Your task to perform on an android device: Go to Maps Image 0: 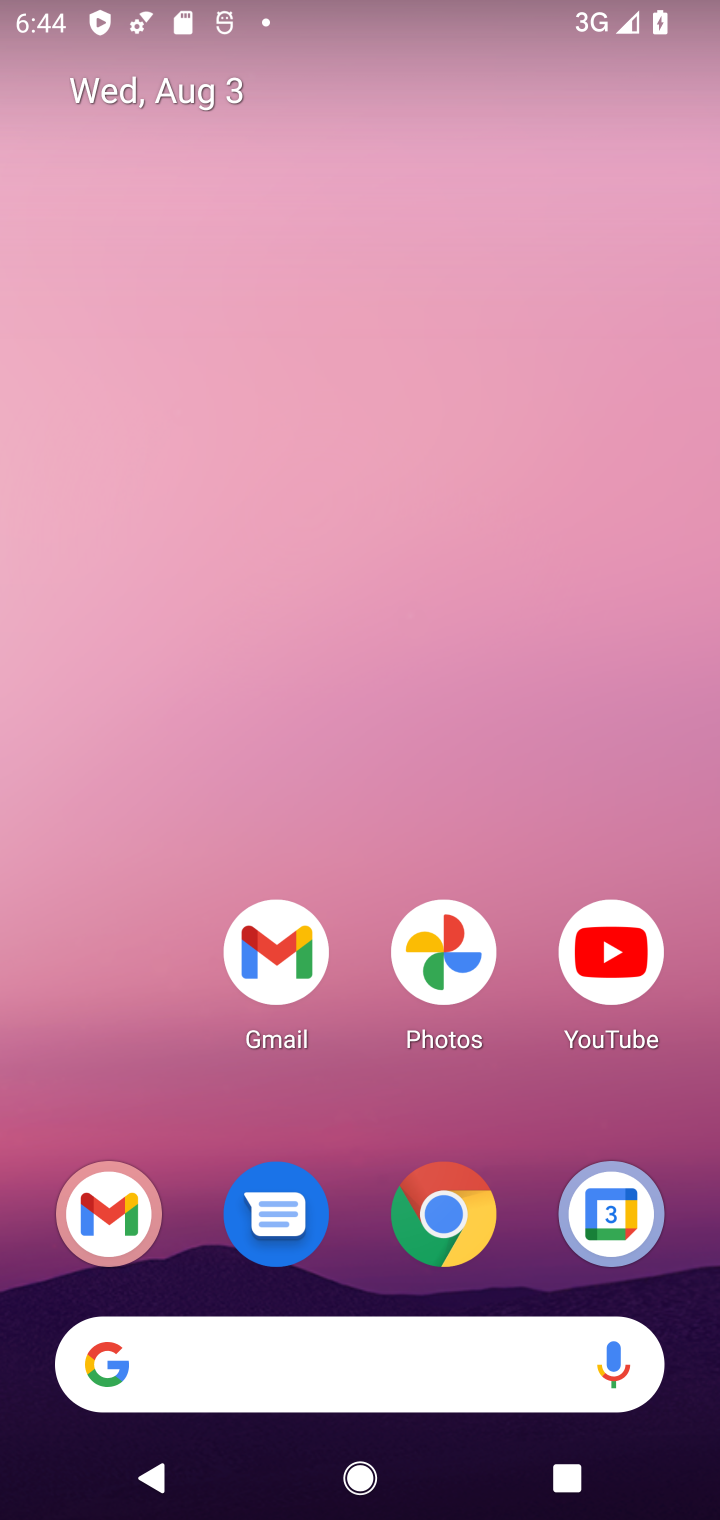
Step 0: drag from (84, 1115) to (717, 46)
Your task to perform on an android device: Go to Maps Image 1: 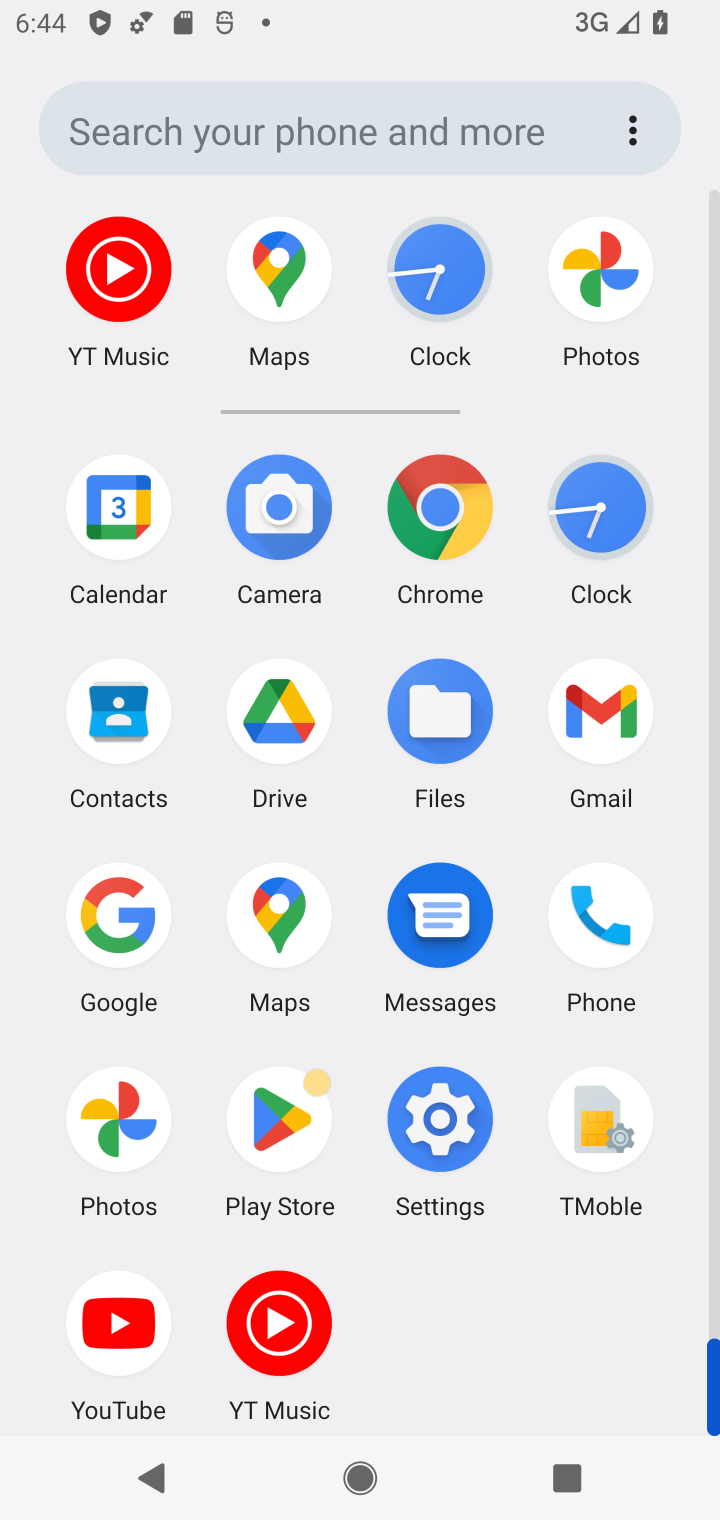
Step 1: click (287, 931)
Your task to perform on an android device: Go to Maps Image 2: 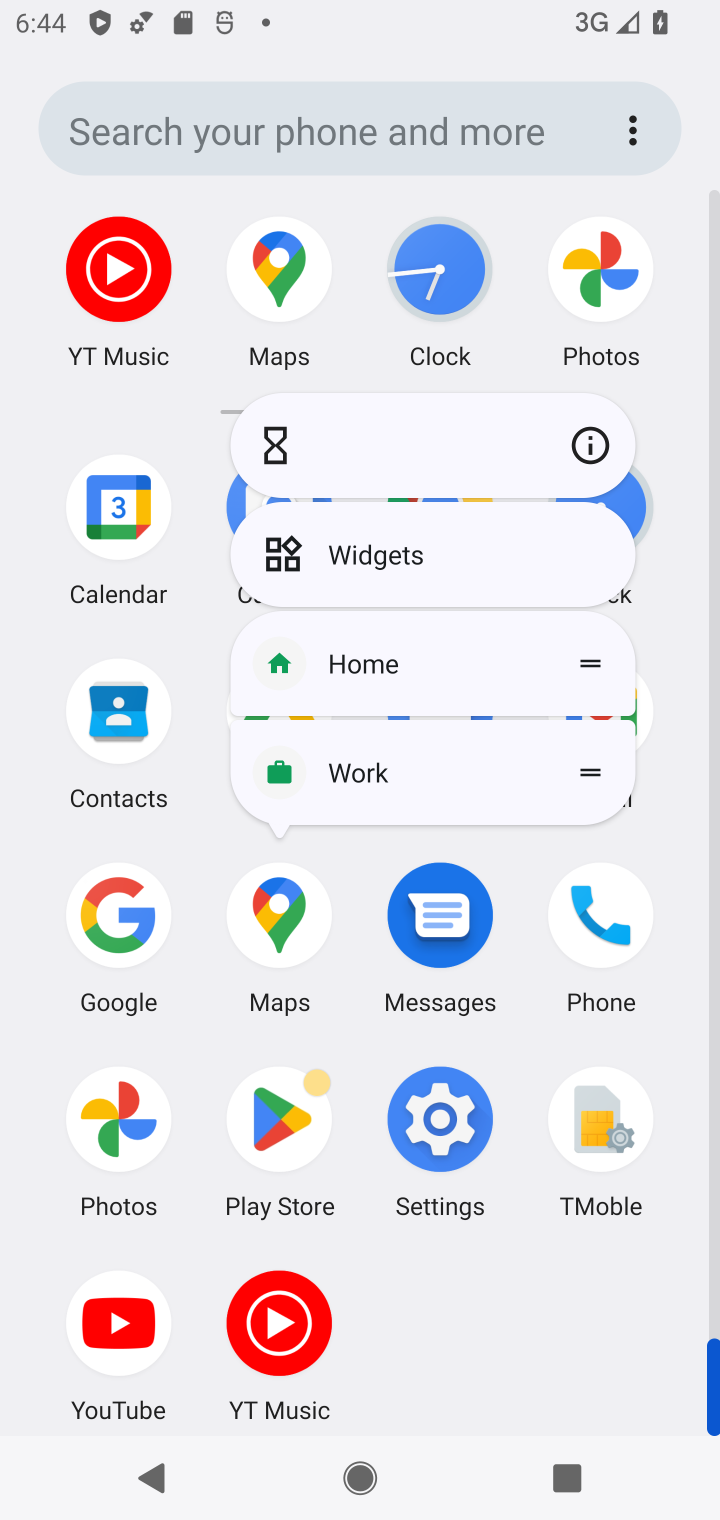
Step 2: click (270, 928)
Your task to perform on an android device: Go to Maps Image 3: 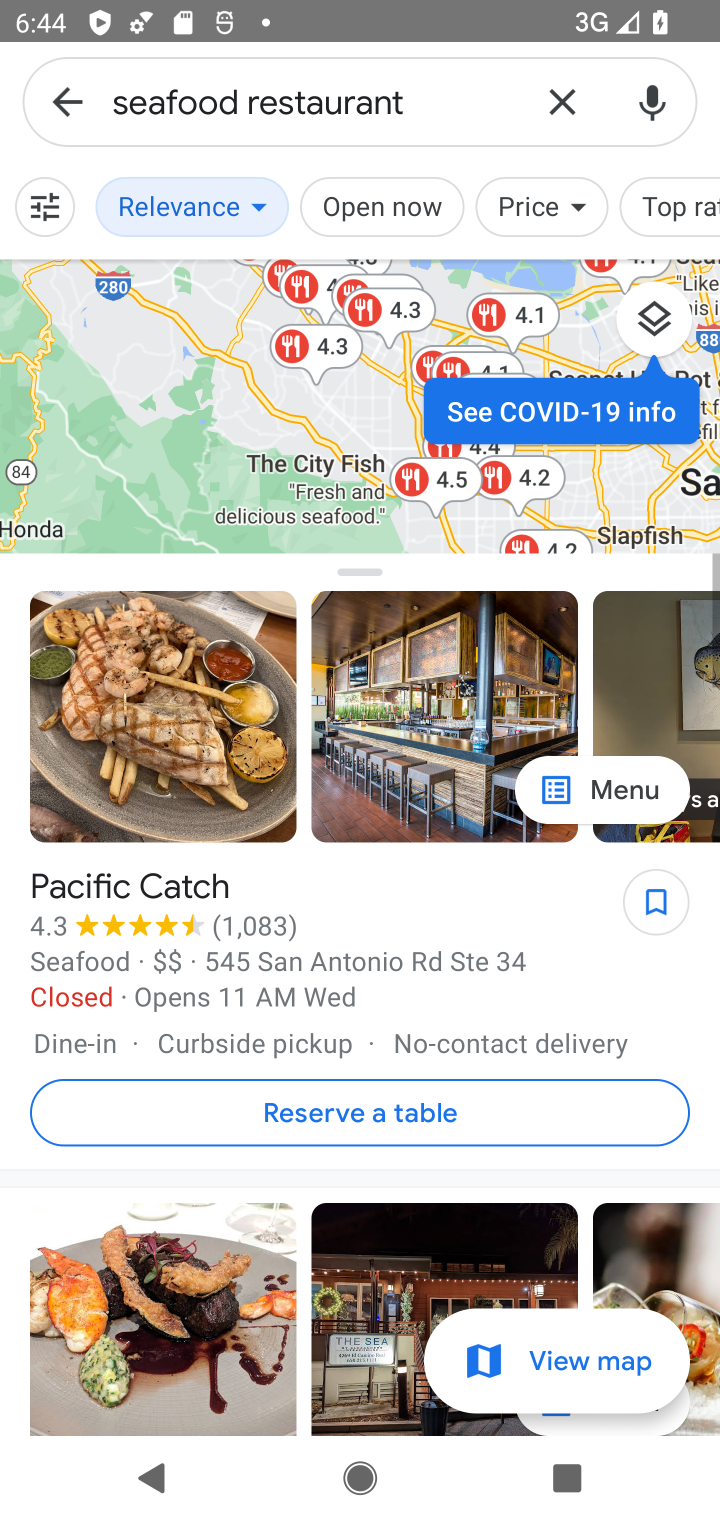
Step 3: task complete